Your task to perform on an android device: Clear all items from cart on target.com. Add acer predator to the cart on target.com, then select checkout. Image 0: 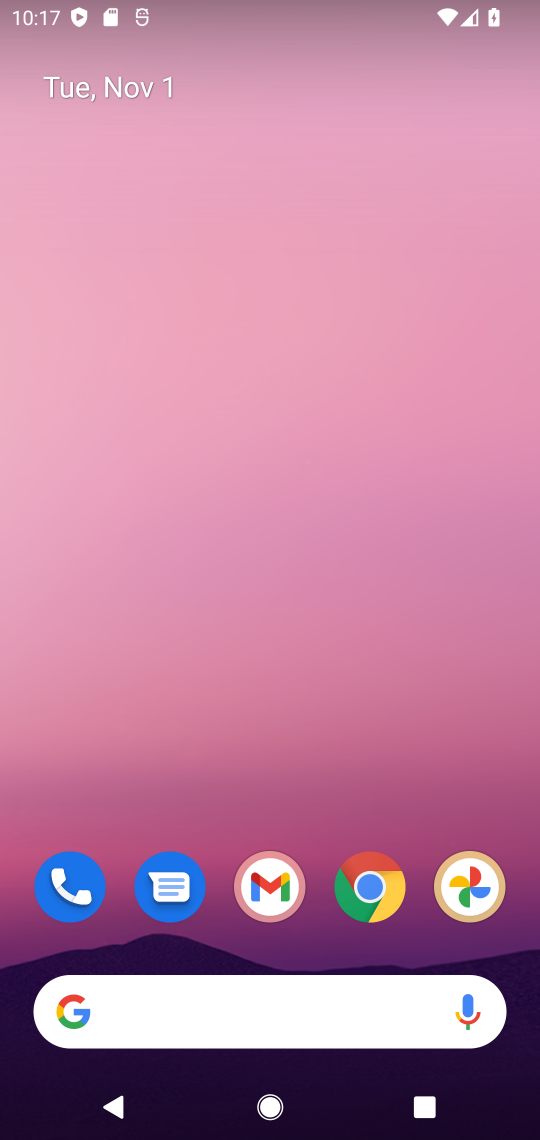
Step 0: click (371, 884)
Your task to perform on an android device: Clear all items from cart on target.com. Add acer predator to the cart on target.com, then select checkout. Image 1: 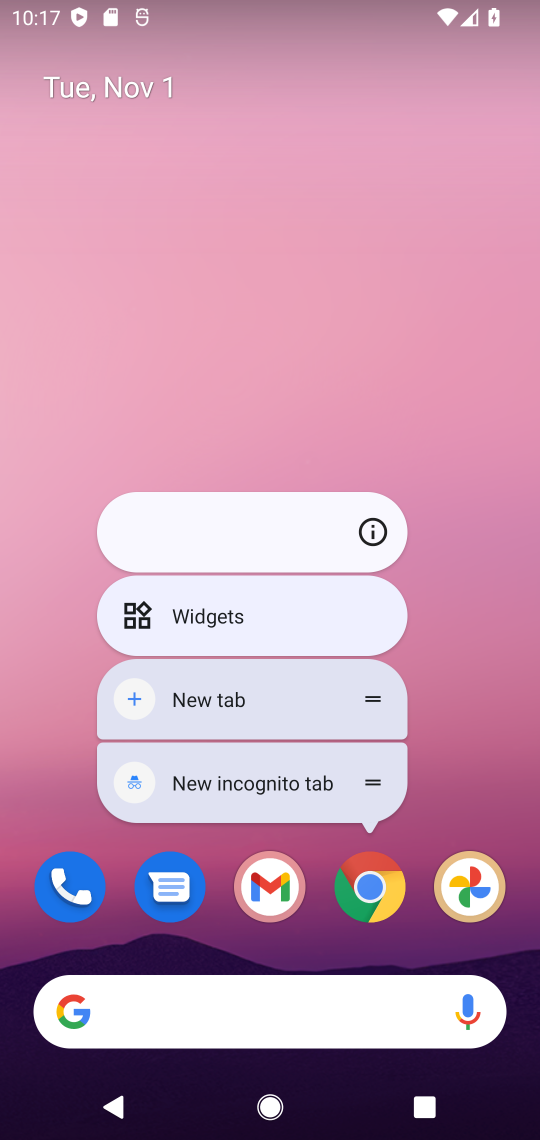
Step 1: click (370, 882)
Your task to perform on an android device: Clear all items from cart on target.com. Add acer predator to the cart on target.com, then select checkout. Image 2: 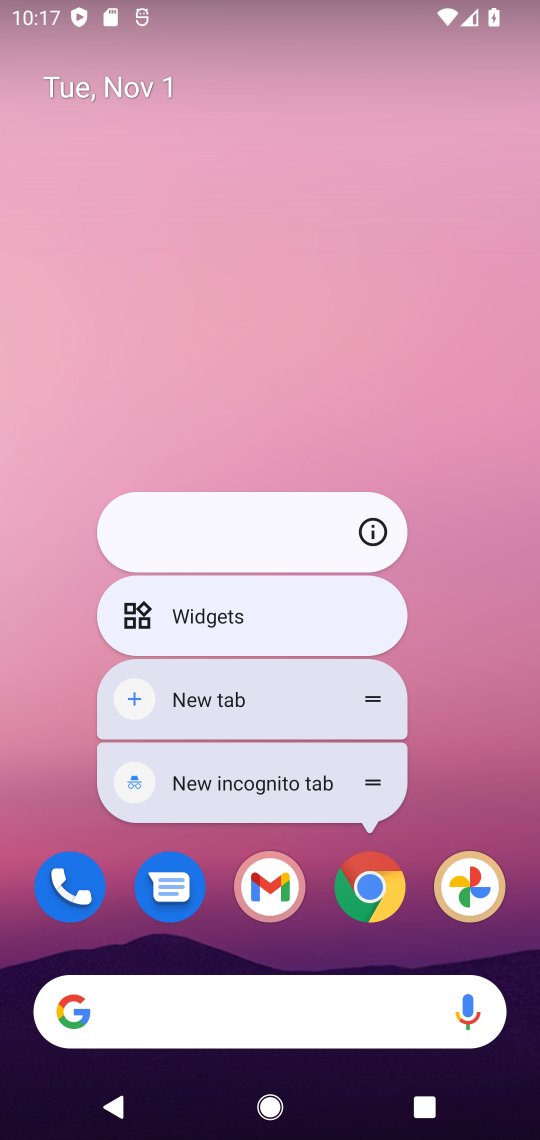
Step 2: click (370, 882)
Your task to perform on an android device: Clear all items from cart on target.com. Add acer predator to the cart on target.com, then select checkout. Image 3: 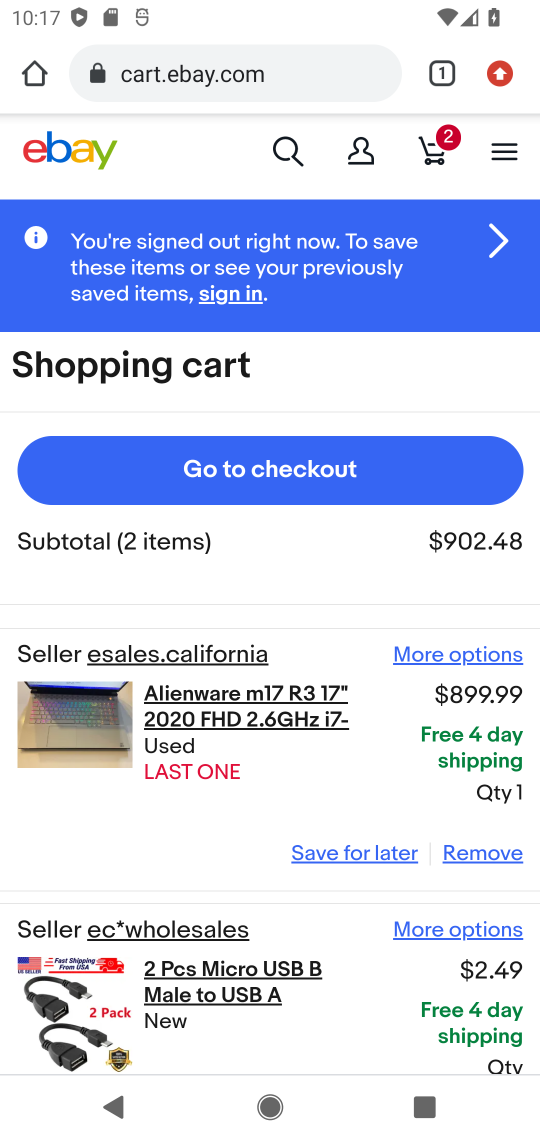
Step 3: click (324, 86)
Your task to perform on an android device: Clear all items from cart on target.com. Add acer predator to the cart on target.com, then select checkout. Image 4: 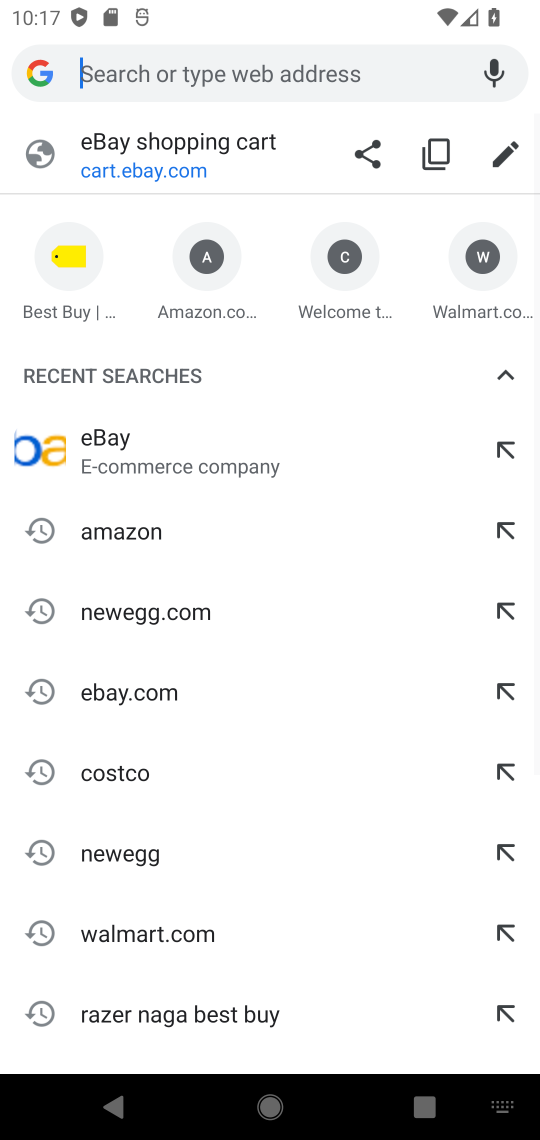
Step 4: type "target.com"
Your task to perform on an android device: Clear all items from cart on target.com. Add acer predator to the cart on target.com, then select checkout. Image 5: 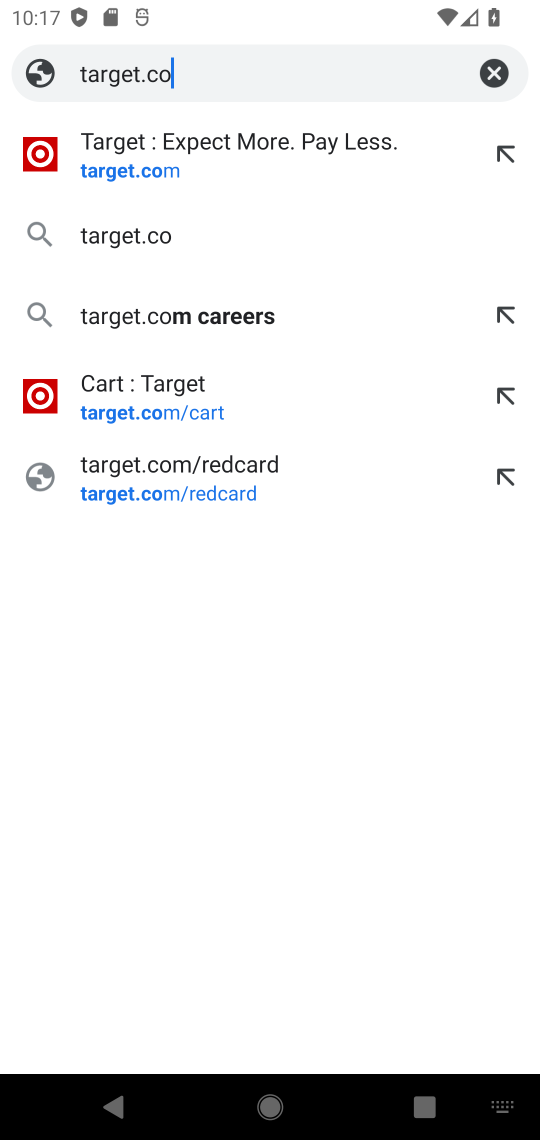
Step 5: press enter
Your task to perform on an android device: Clear all items from cart on target.com. Add acer predator to the cart on target.com, then select checkout. Image 6: 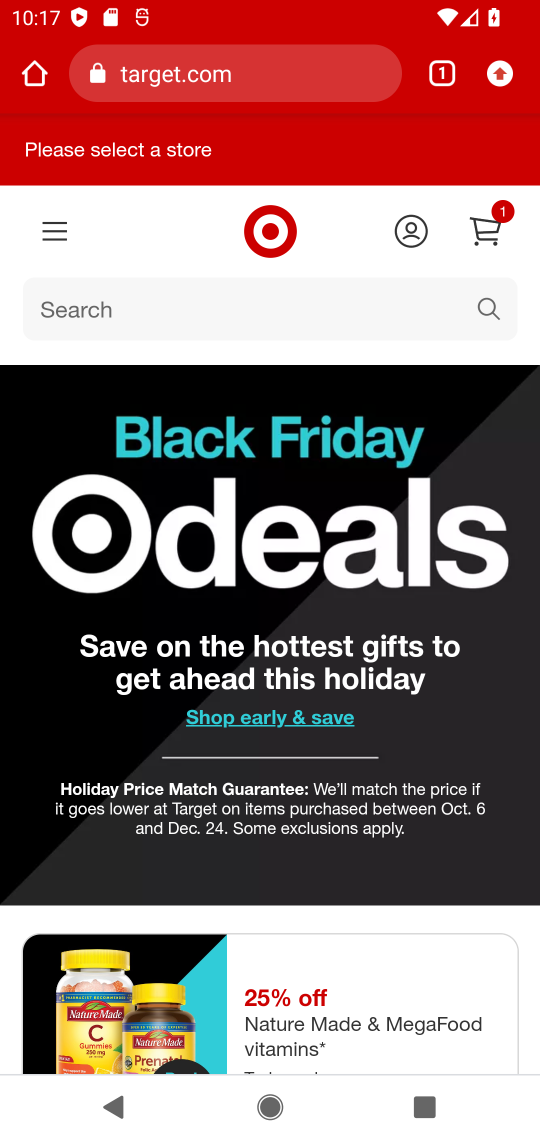
Step 6: click (486, 239)
Your task to perform on an android device: Clear all items from cart on target.com. Add acer predator to the cart on target.com, then select checkout. Image 7: 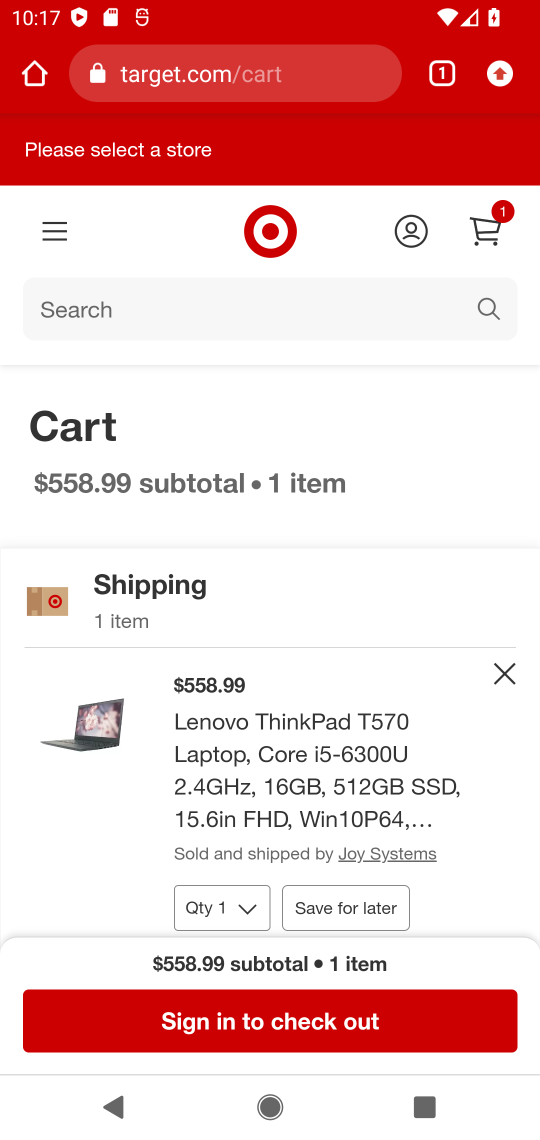
Step 7: drag from (467, 865) to (539, 604)
Your task to perform on an android device: Clear all items from cart on target.com. Add acer predator to the cart on target.com, then select checkout. Image 8: 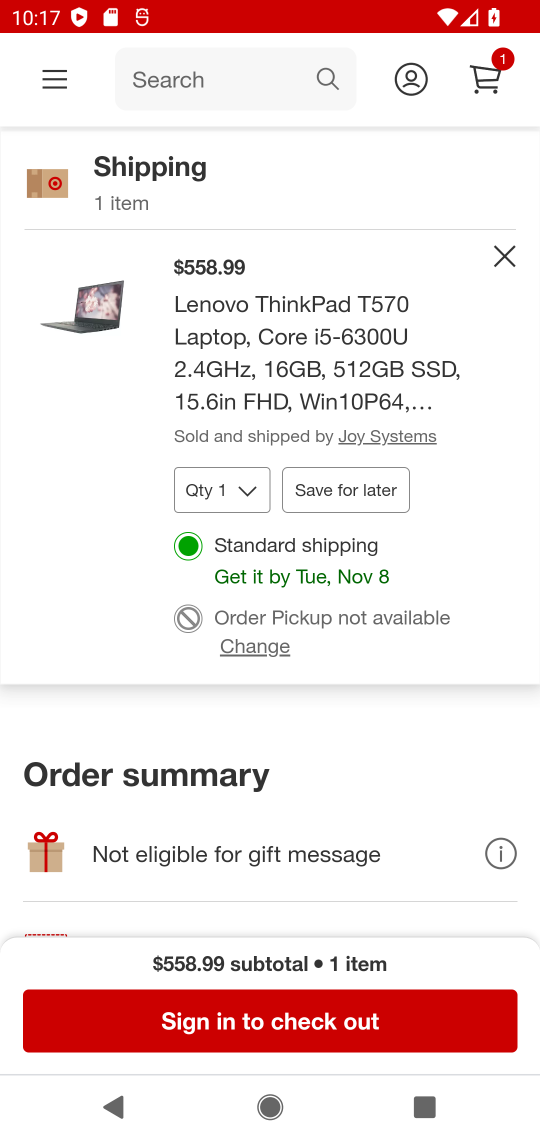
Step 8: click (511, 243)
Your task to perform on an android device: Clear all items from cart on target.com. Add acer predator to the cart on target.com, then select checkout. Image 9: 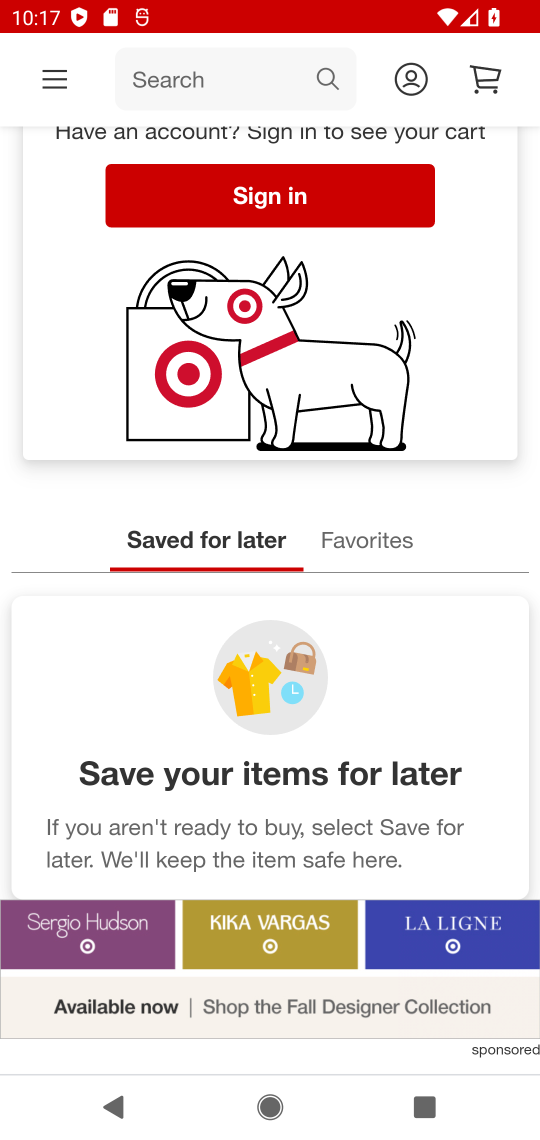
Step 9: click (321, 78)
Your task to perform on an android device: Clear all items from cart on target.com. Add acer predator to the cart on target.com, then select checkout. Image 10: 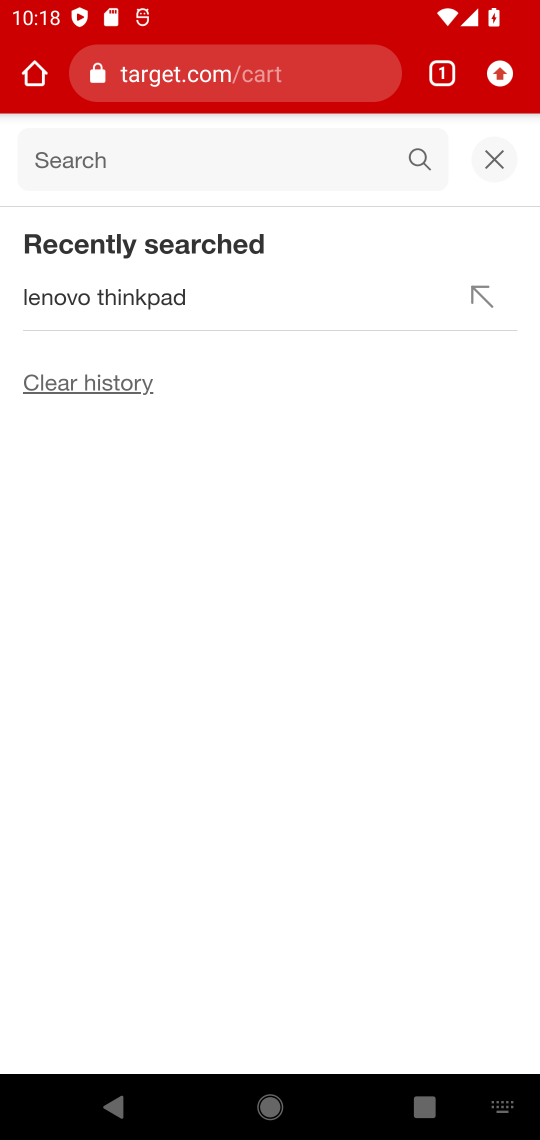
Step 10: type "acer predator"
Your task to perform on an android device: Clear all items from cart on target.com. Add acer predator to the cart on target.com, then select checkout. Image 11: 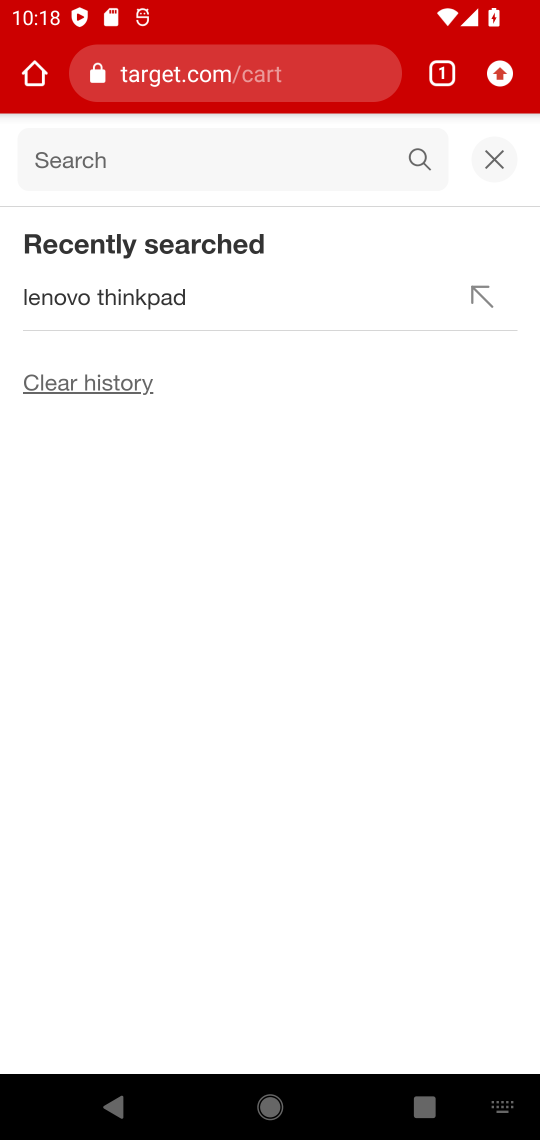
Step 11: press enter
Your task to perform on an android device: Clear all items from cart on target.com. Add acer predator to the cart on target.com, then select checkout. Image 12: 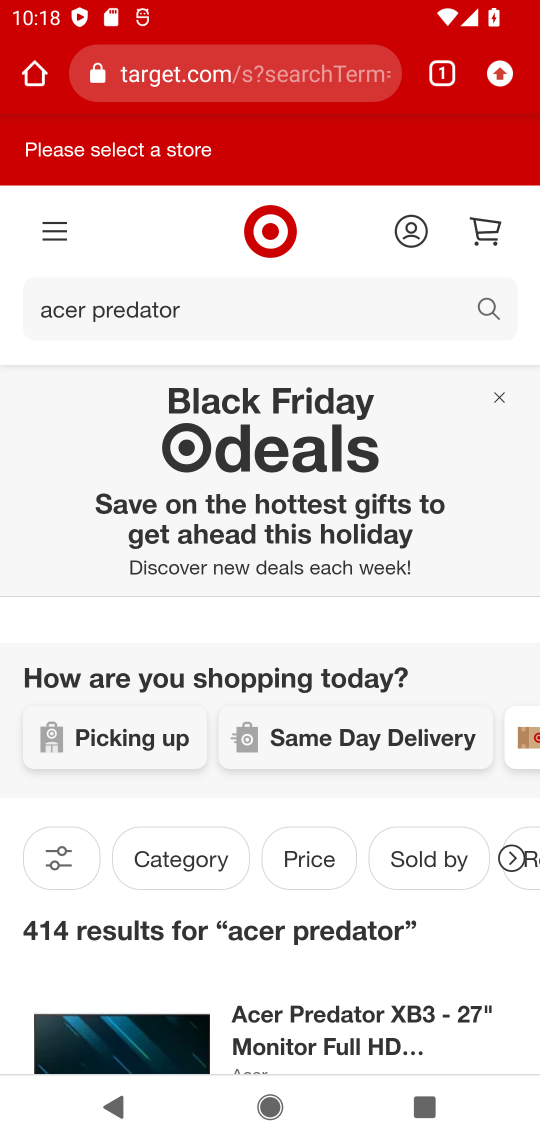
Step 12: drag from (337, 959) to (380, 609)
Your task to perform on an android device: Clear all items from cart on target.com. Add acer predator to the cart on target.com, then select checkout. Image 13: 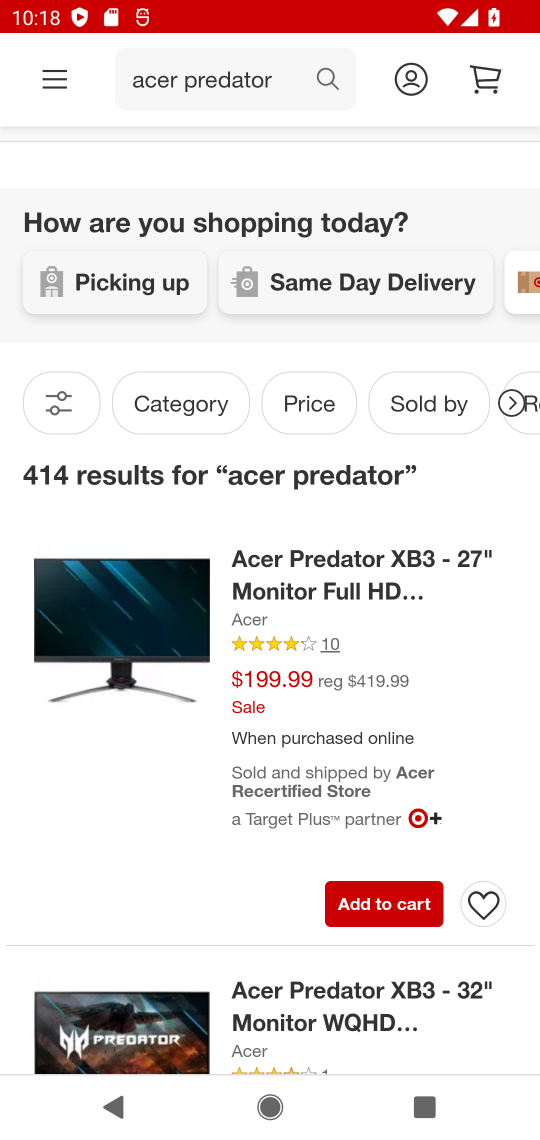
Step 13: click (111, 610)
Your task to perform on an android device: Clear all items from cart on target.com. Add acer predator to the cart on target.com, then select checkout. Image 14: 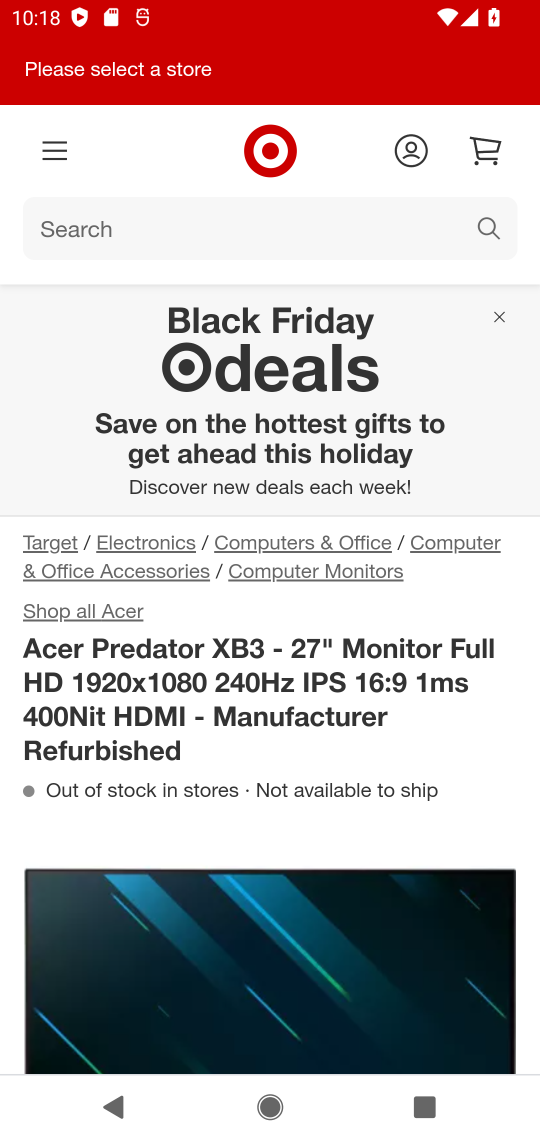
Step 14: drag from (372, 819) to (408, 516)
Your task to perform on an android device: Clear all items from cart on target.com. Add acer predator to the cart on target.com, then select checkout. Image 15: 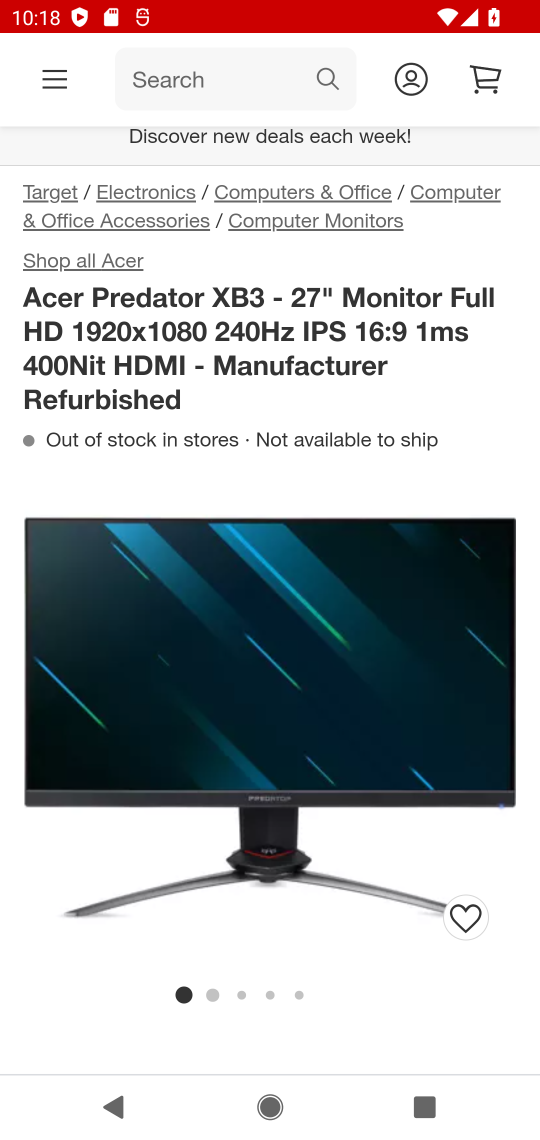
Step 15: drag from (386, 828) to (300, 413)
Your task to perform on an android device: Clear all items from cart on target.com. Add acer predator to the cart on target.com, then select checkout. Image 16: 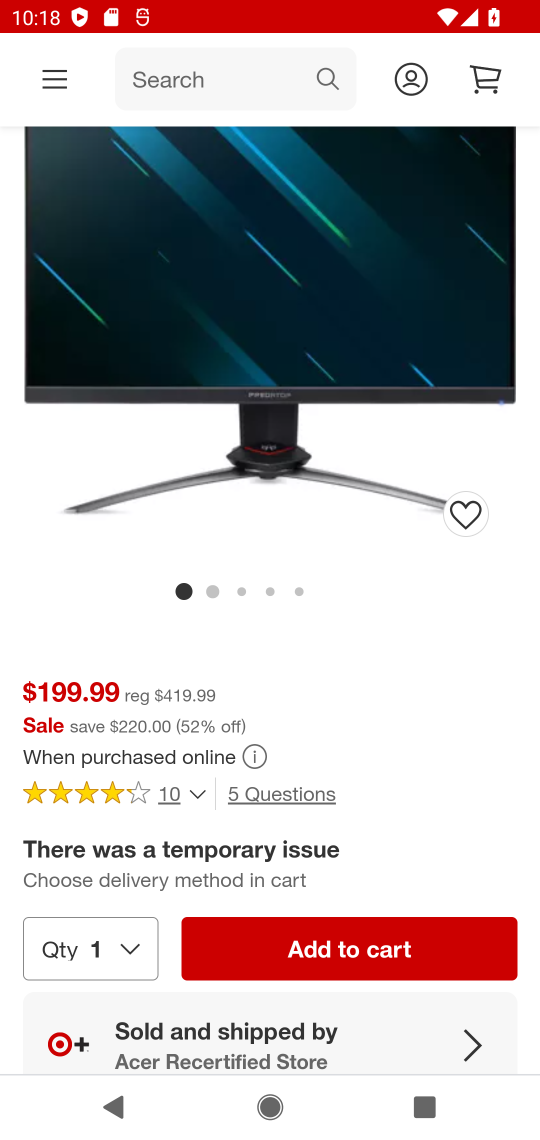
Step 16: click (362, 945)
Your task to perform on an android device: Clear all items from cart on target.com. Add acer predator to the cart on target.com, then select checkout. Image 17: 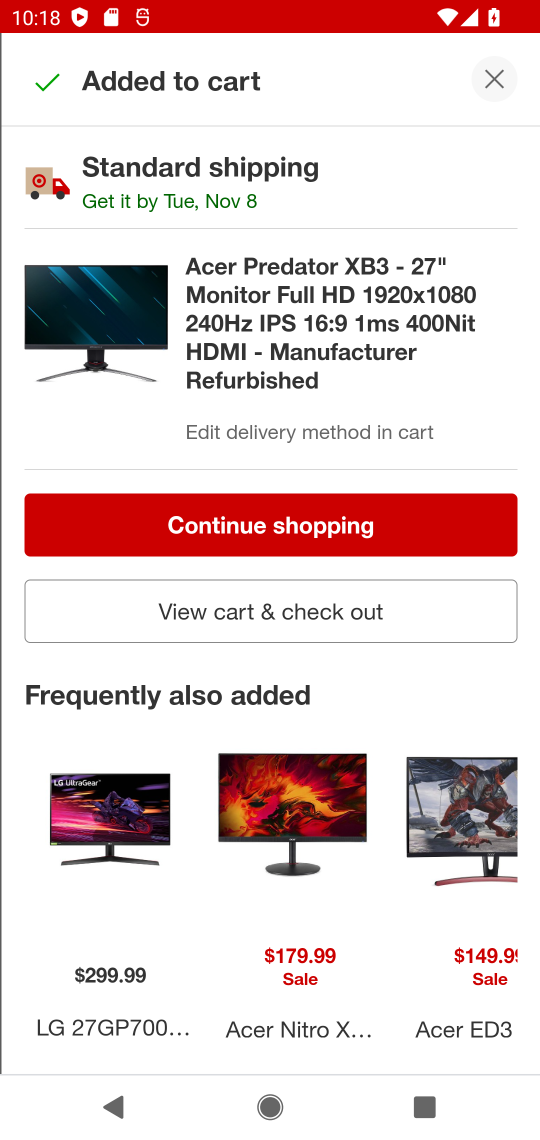
Step 17: click (376, 608)
Your task to perform on an android device: Clear all items from cart on target.com. Add acer predator to the cart on target.com, then select checkout. Image 18: 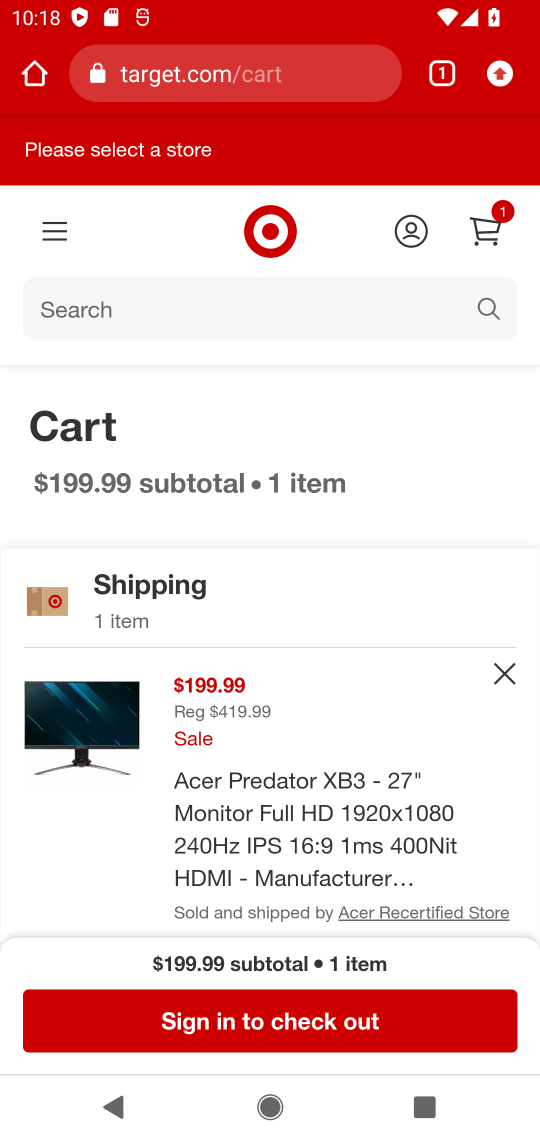
Step 18: click (373, 1020)
Your task to perform on an android device: Clear all items from cart on target.com. Add acer predator to the cart on target.com, then select checkout. Image 19: 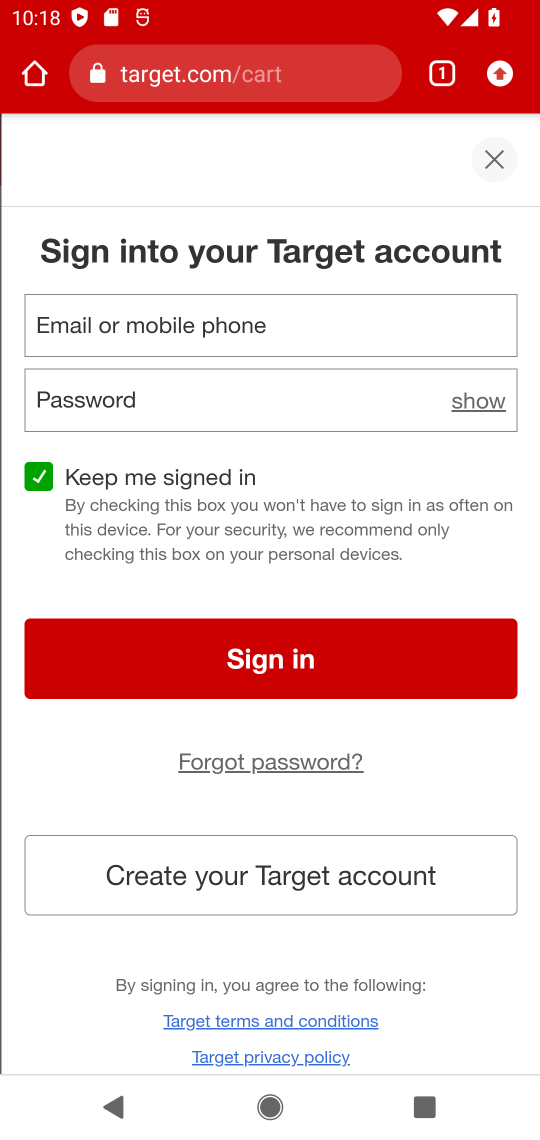
Step 19: task complete